Your task to perform on an android device: Go to Maps Image 0: 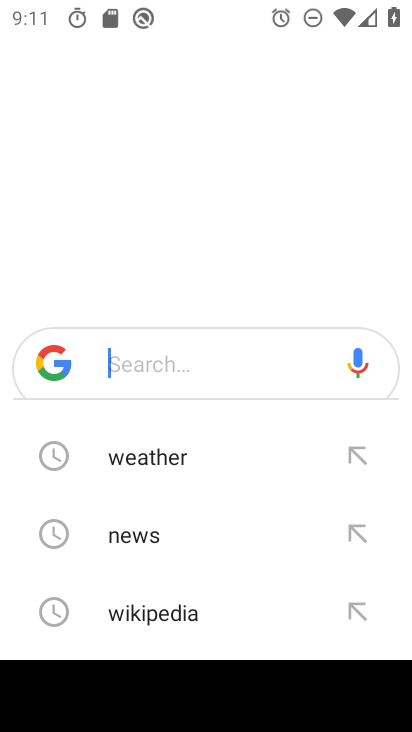
Step 0: press home button
Your task to perform on an android device: Go to Maps Image 1: 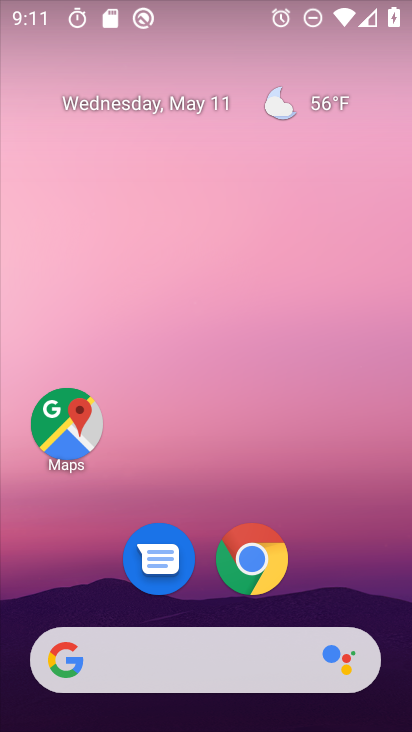
Step 1: click (74, 428)
Your task to perform on an android device: Go to Maps Image 2: 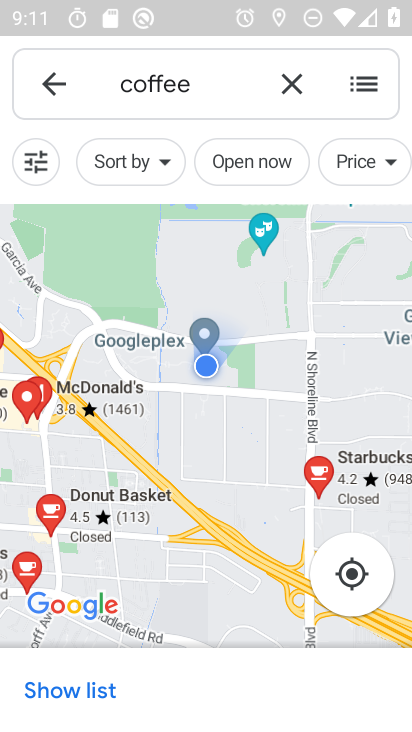
Step 2: task complete